Your task to perform on an android device: change the upload size in google photos Image 0: 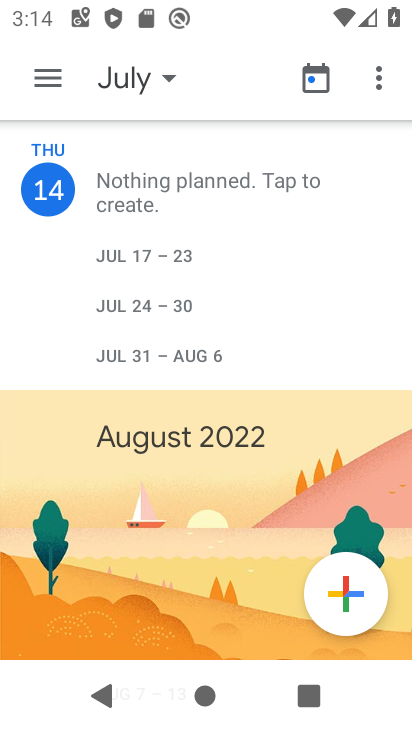
Step 0: press back button
Your task to perform on an android device: change the upload size in google photos Image 1: 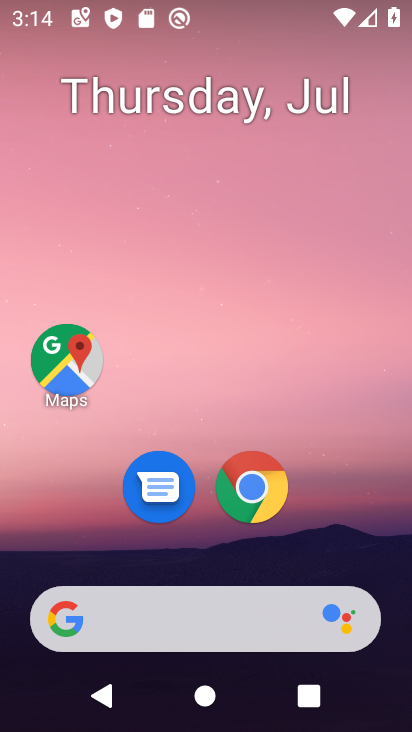
Step 1: click (252, 478)
Your task to perform on an android device: change the upload size in google photos Image 2: 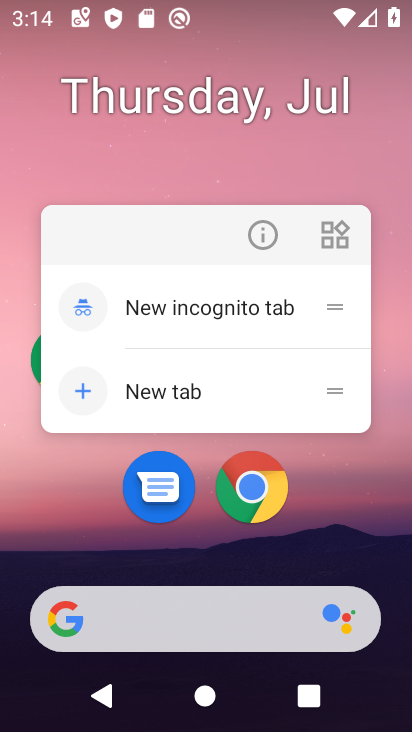
Step 2: click (248, 475)
Your task to perform on an android device: change the upload size in google photos Image 3: 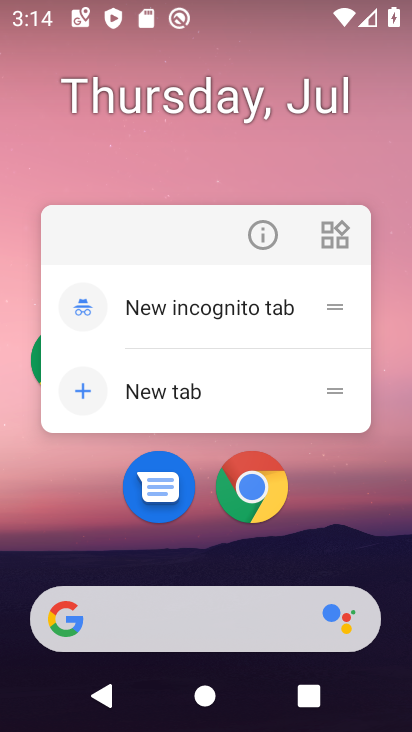
Step 3: click (261, 486)
Your task to perform on an android device: change the upload size in google photos Image 4: 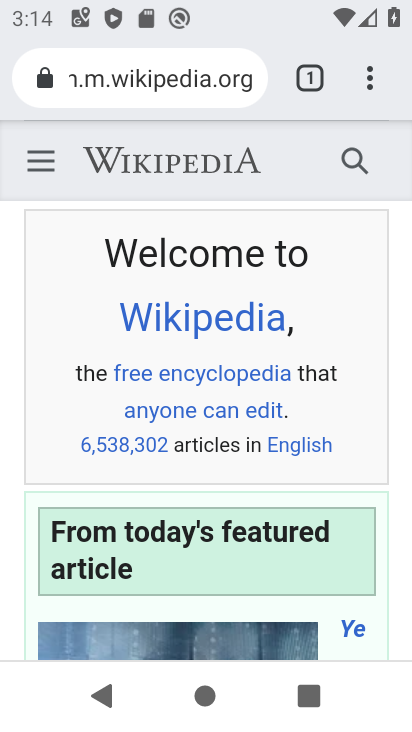
Step 4: press back button
Your task to perform on an android device: change the upload size in google photos Image 5: 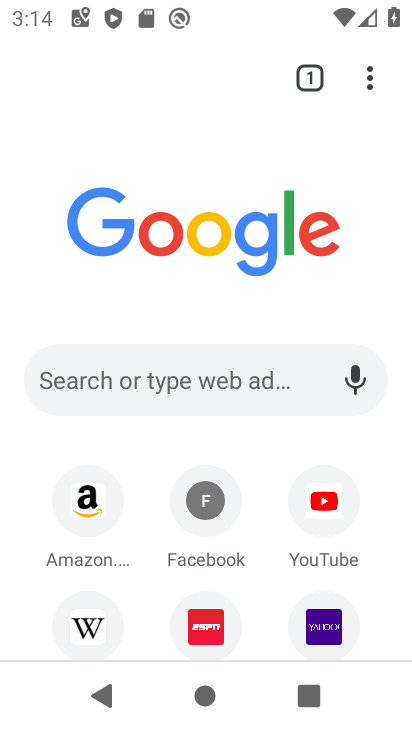
Step 5: press back button
Your task to perform on an android device: change the upload size in google photos Image 6: 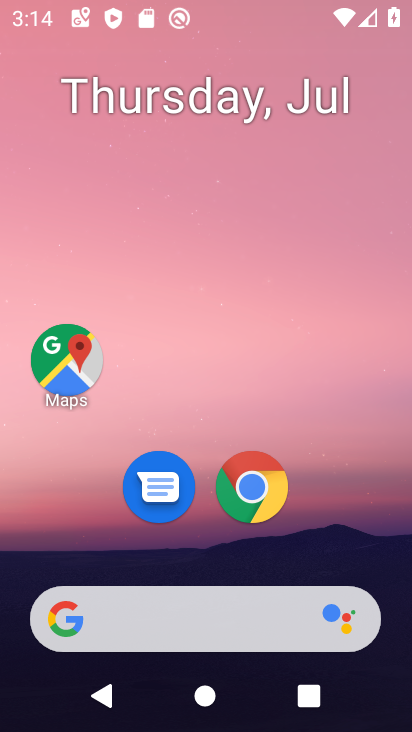
Step 6: press back button
Your task to perform on an android device: change the upload size in google photos Image 7: 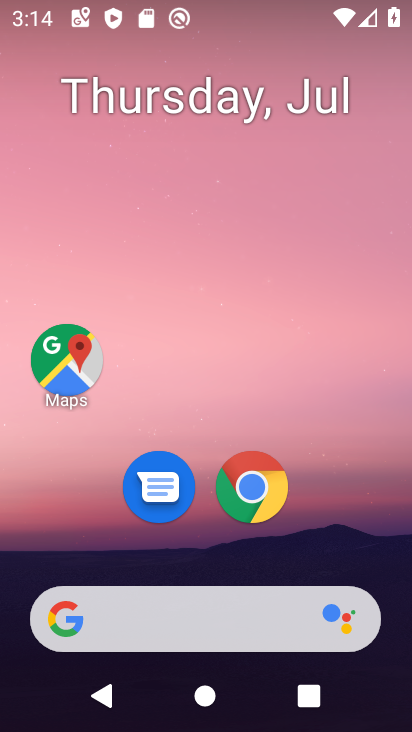
Step 7: drag from (207, 541) to (210, 79)
Your task to perform on an android device: change the upload size in google photos Image 8: 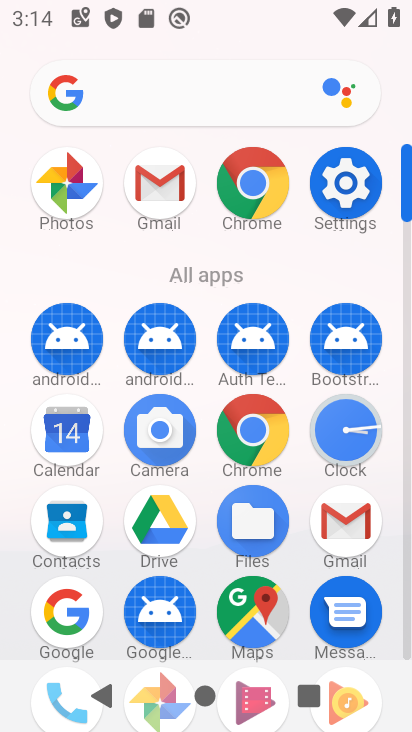
Step 8: drag from (254, 588) to (279, 343)
Your task to perform on an android device: change the upload size in google photos Image 9: 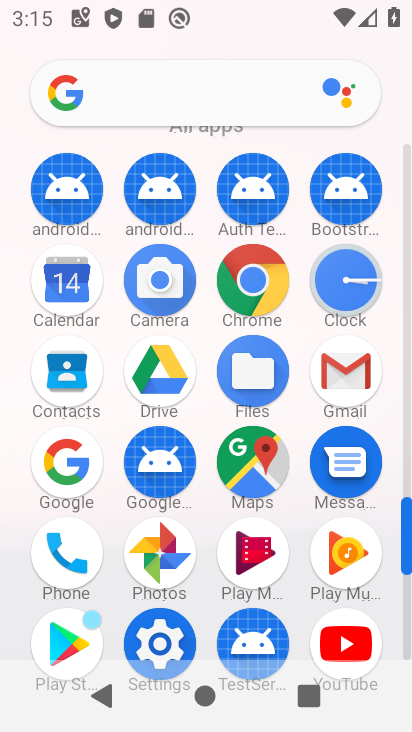
Step 9: click (159, 570)
Your task to perform on an android device: change the upload size in google photos Image 10: 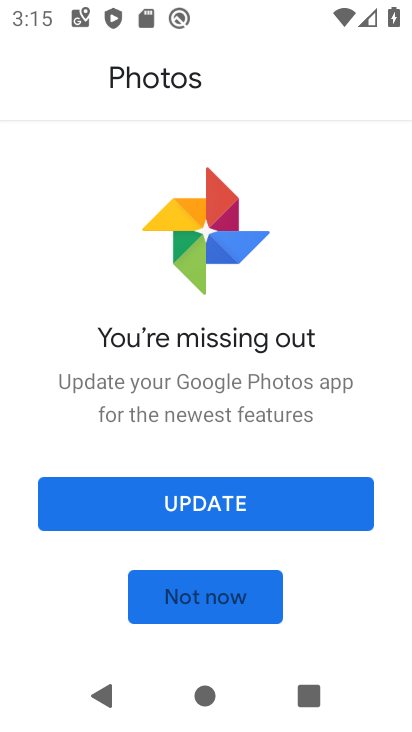
Step 10: click (314, 416)
Your task to perform on an android device: change the upload size in google photos Image 11: 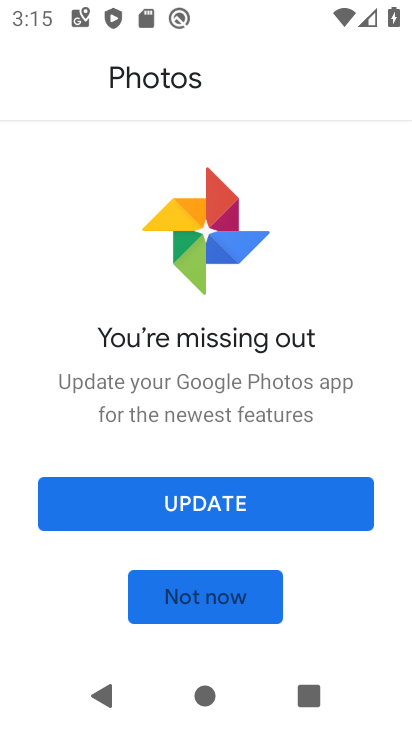
Step 11: click (194, 586)
Your task to perform on an android device: change the upload size in google photos Image 12: 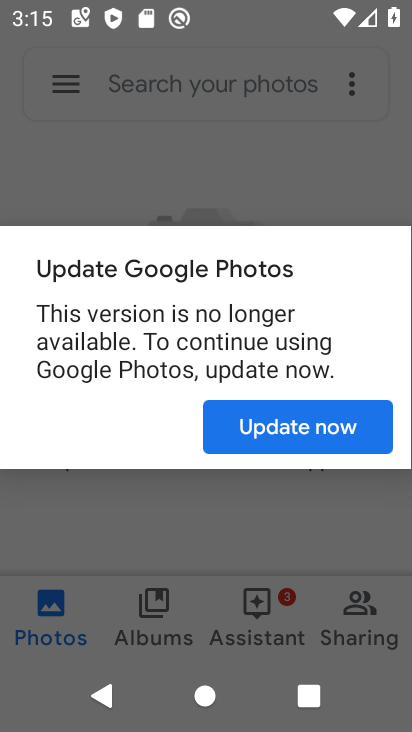
Step 12: click (288, 434)
Your task to perform on an android device: change the upload size in google photos Image 13: 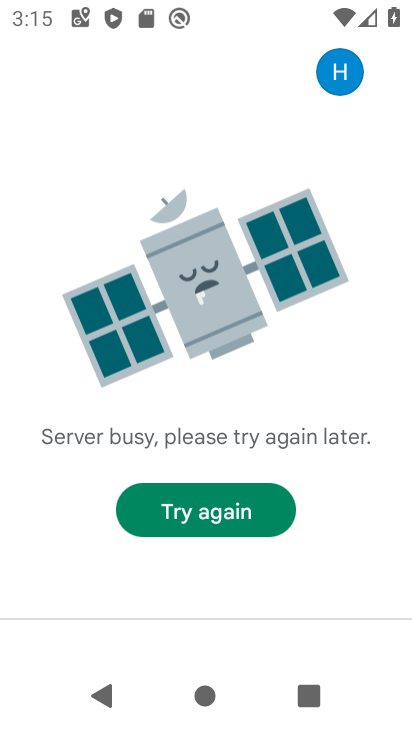
Step 13: press back button
Your task to perform on an android device: change the upload size in google photos Image 14: 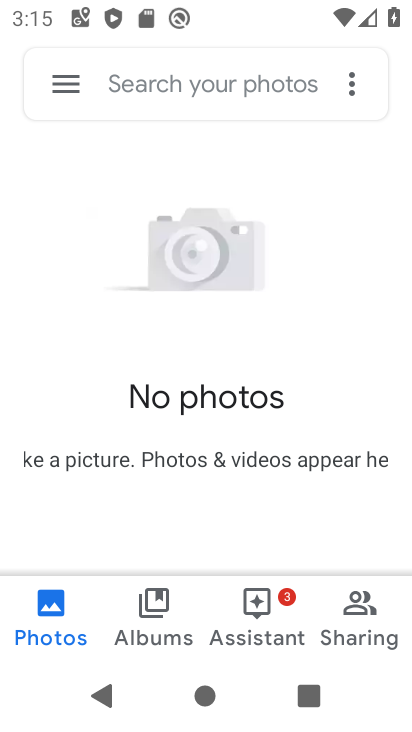
Step 14: click (42, 79)
Your task to perform on an android device: change the upload size in google photos Image 15: 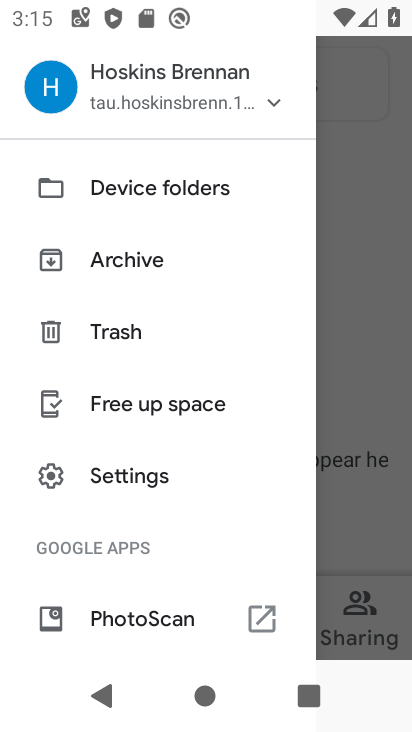
Step 15: click (180, 485)
Your task to perform on an android device: change the upload size in google photos Image 16: 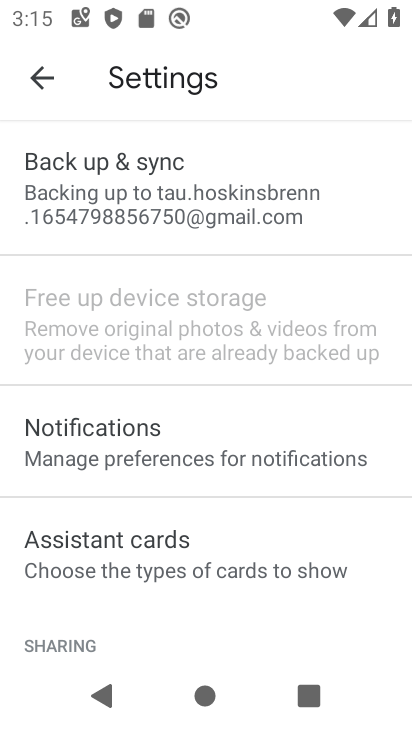
Step 16: drag from (151, 547) to (219, 294)
Your task to perform on an android device: change the upload size in google photos Image 17: 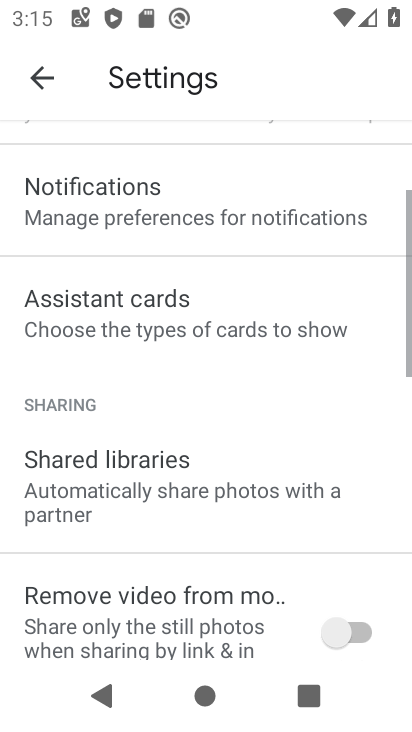
Step 17: drag from (157, 592) to (244, 707)
Your task to perform on an android device: change the upload size in google photos Image 18: 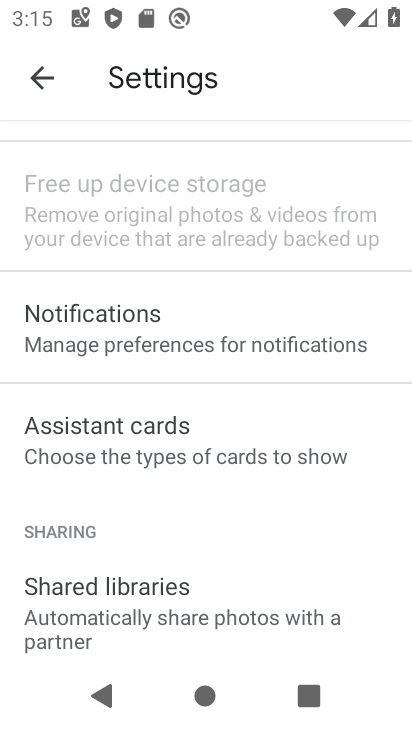
Step 18: drag from (175, 590) to (242, 143)
Your task to perform on an android device: change the upload size in google photos Image 19: 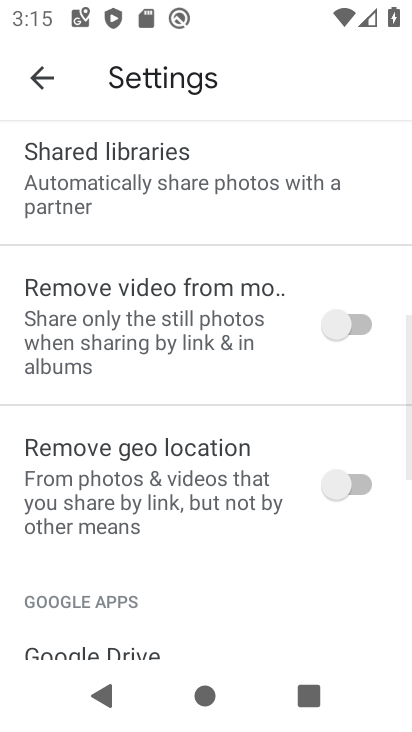
Step 19: drag from (239, 178) to (185, 730)
Your task to perform on an android device: change the upload size in google photos Image 20: 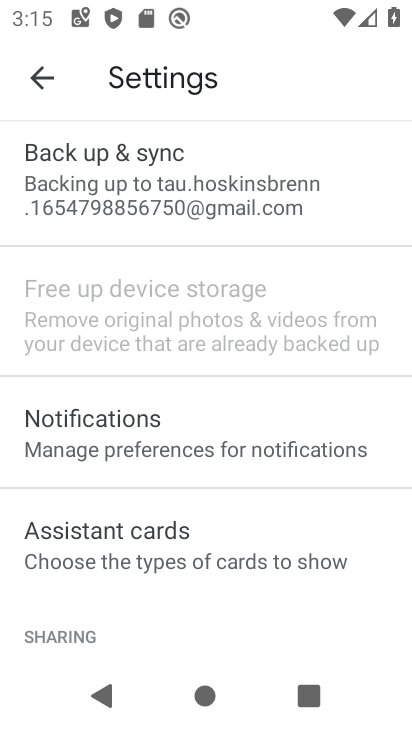
Step 20: click (195, 178)
Your task to perform on an android device: change the upload size in google photos Image 21: 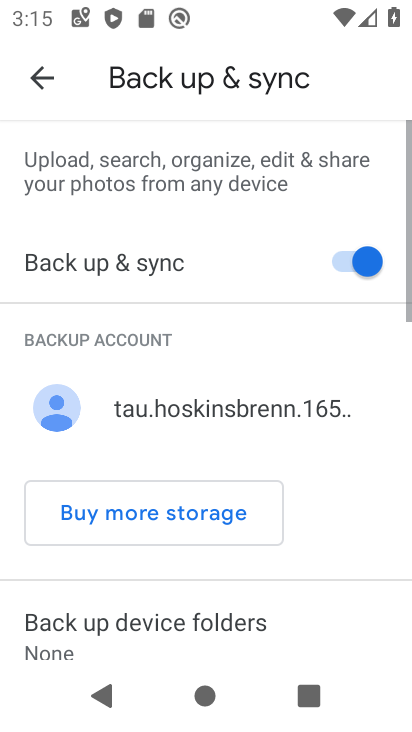
Step 21: drag from (154, 564) to (240, 25)
Your task to perform on an android device: change the upload size in google photos Image 22: 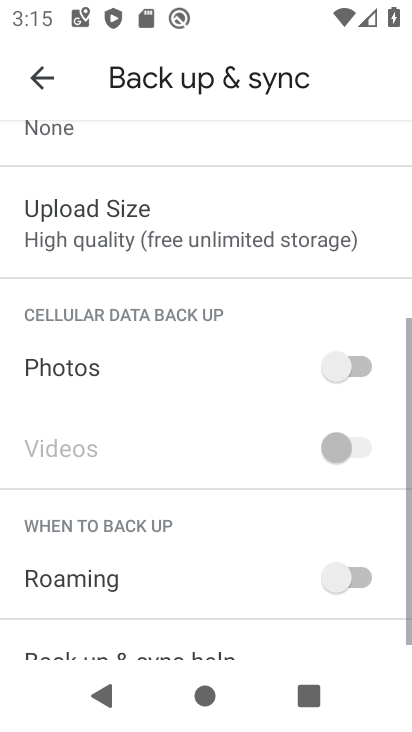
Step 22: click (87, 243)
Your task to perform on an android device: change the upload size in google photos Image 23: 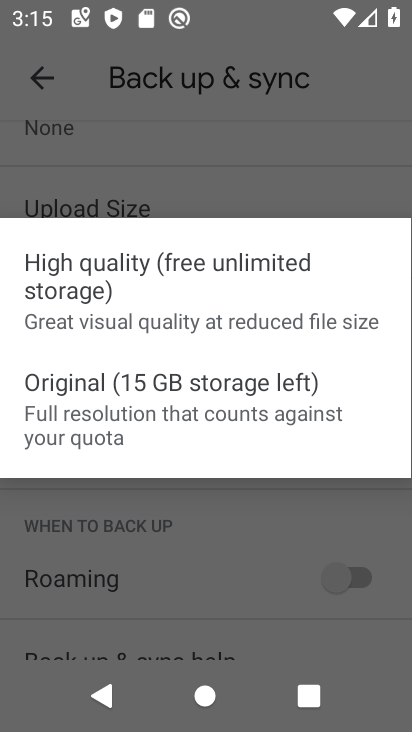
Step 23: click (114, 418)
Your task to perform on an android device: change the upload size in google photos Image 24: 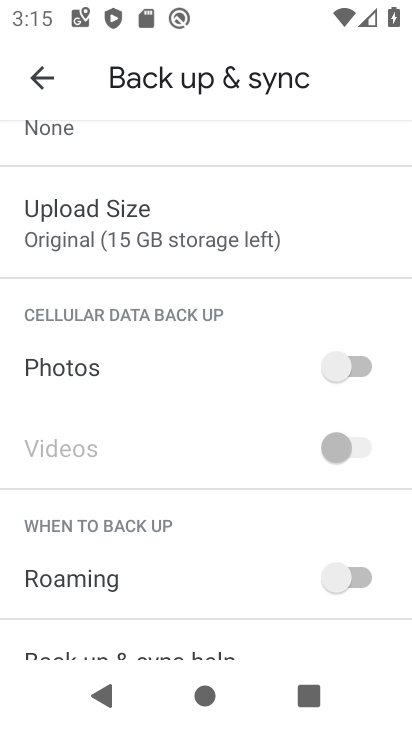
Step 24: task complete